Your task to perform on an android device: Open Youtube and go to the subscriptions tab Image 0: 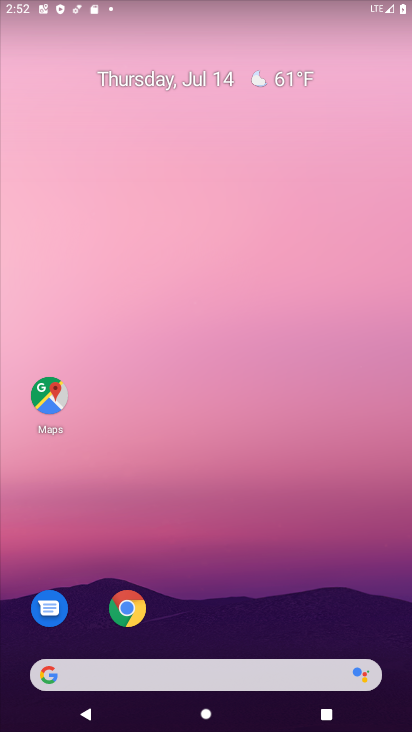
Step 0: click (164, 279)
Your task to perform on an android device: Open Youtube and go to the subscriptions tab Image 1: 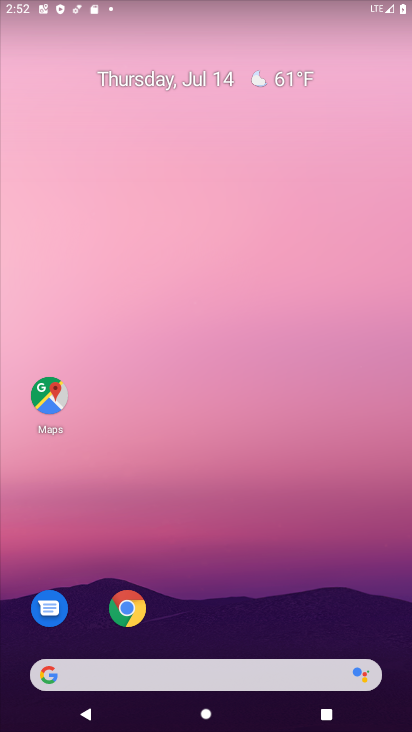
Step 1: drag from (253, 647) to (244, 233)
Your task to perform on an android device: Open Youtube and go to the subscriptions tab Image 2: 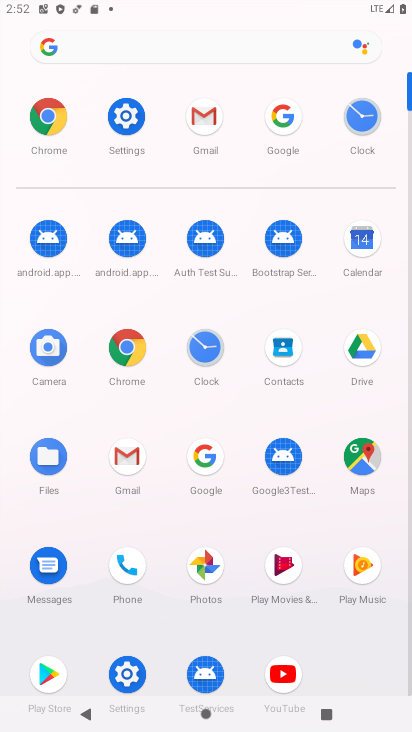
Step 2: click (282, 668)
Your task to perform on an android device: Open Youtube and go to the subscriptions tab Image 3: 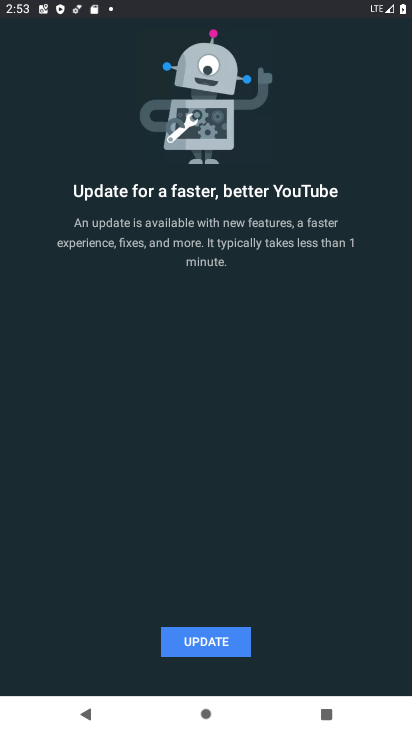
Step 3: click (190, 652)
Your task to perform on an android device: Open Youtube and go to the subscriptions tab Image 4: 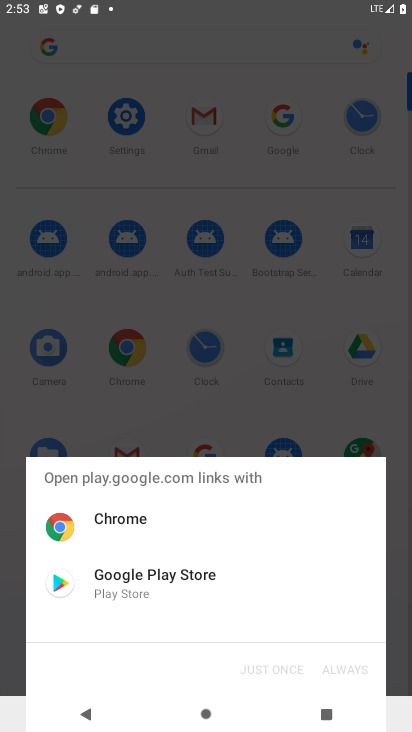
Step 4: click (175, 590)
Your task to perform on an android device: Open Youtube and go to the subscriptions tab Image 5: 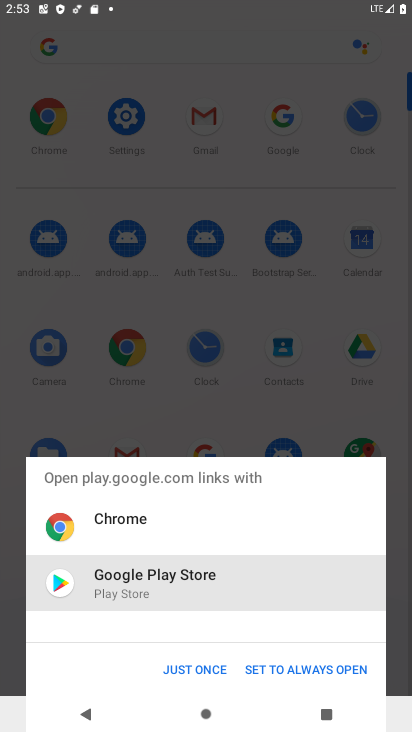
Step 5: click (224, 665)
Your task to perform on an android device: Open Youtube and go to the subscriptions tab Image 6: 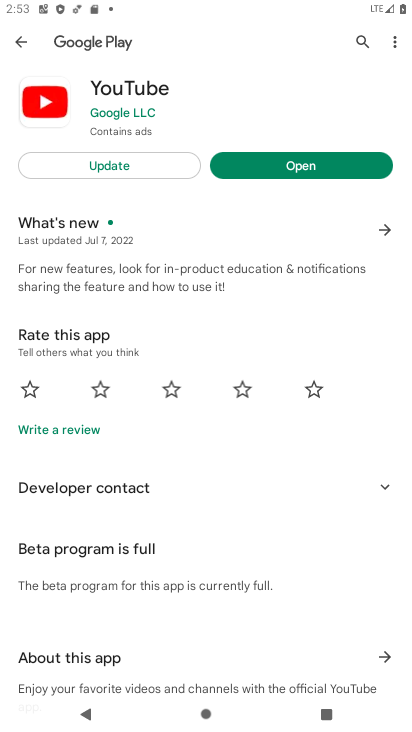
Step 6: click (131, 160)
Your task to perform on an android device: Open Youtube and go to the subscriptions tab Image 7: 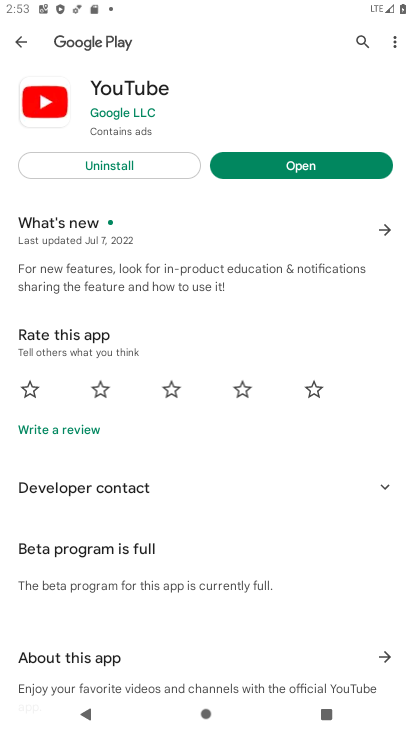
Step 7: click (244, 172)
Your task to perform on an android device: Open Youtube and go to the subscriptions tab Image 8: 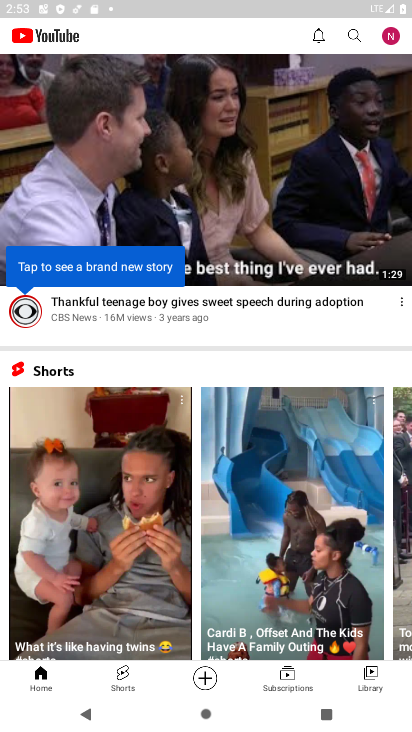
Step 8: click (283, 678)
Your task to perform on an android device: Open Youtube and go to the subscriptions tab Image 9: 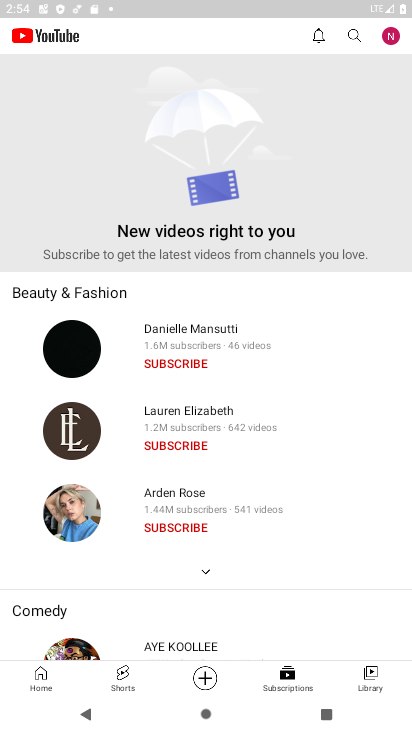
Step 9: task complete